Your task to perform on an android device: Search for Mexican restaurants on Maps Image 0: 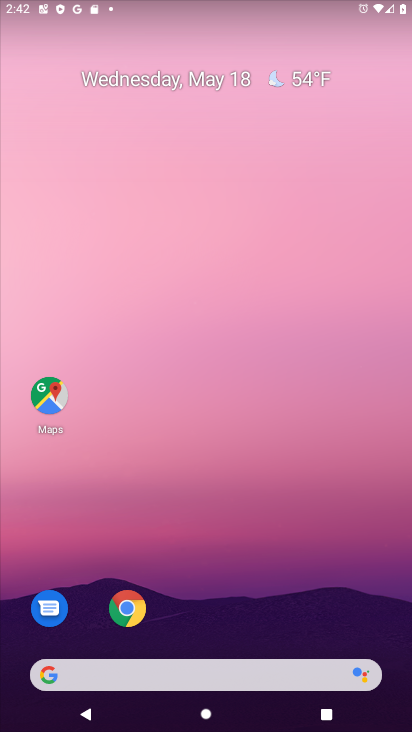
Step 0: click (49, 403)
Your task to perform on an android device: Search for Mexican restaurants on Maps Image 1: 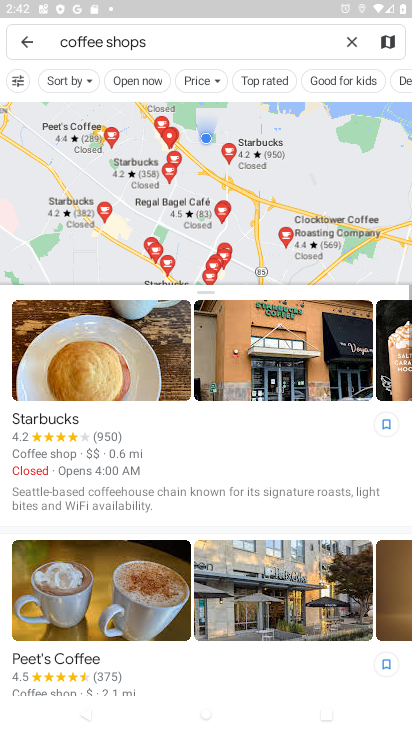
Step 1: click (360, 43)
Your task to perform on an android device: Search for Mexican restaurants on Maps Image 2: 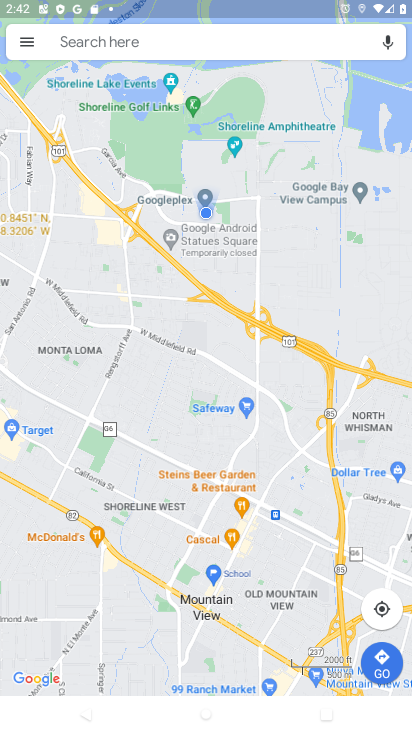
Step 2: click (88, 40)
Your task to perform on an android device: Search for Mexican restaurants on Maps Image 3: 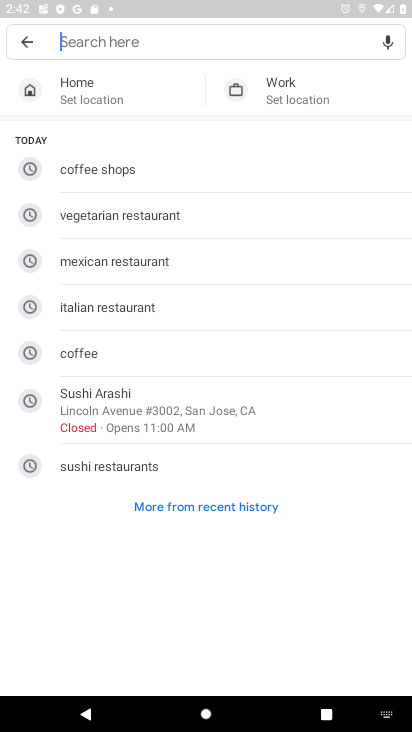
Step 3: type "mexican restaurant"
Your task to perform on an android device: Search for Mexican restaurants on Maps Image 4: 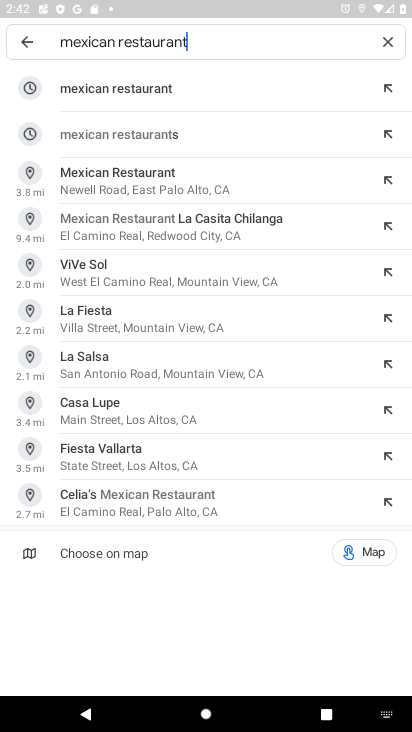
Step 4: click (143, 90)
Your task to perform on an android device: Search for Mexican restaurants on Maps Image 5: 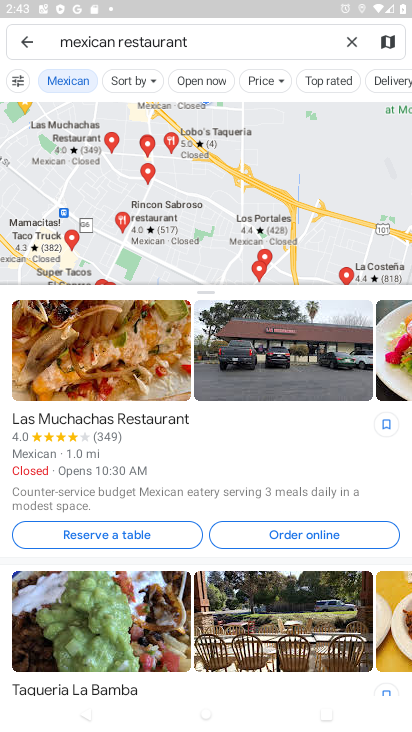
Step 5: task complete